Your task to perform on an android device: Open privacy settings Image 0: 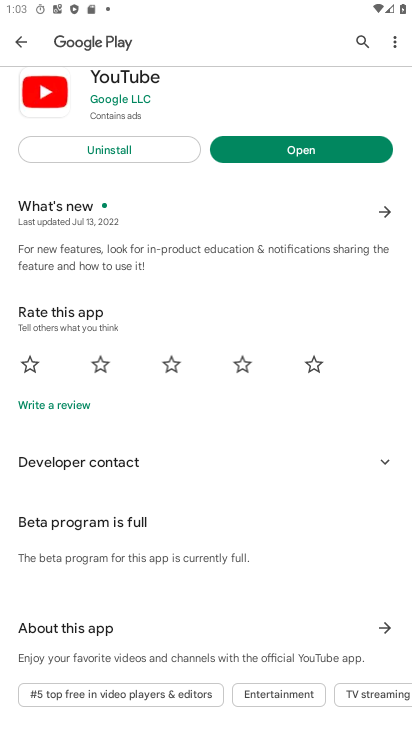
Step 0: drag from (150, 314) to (315, 728)
Your task to perform on an android device: Open privacy settings Image 1: 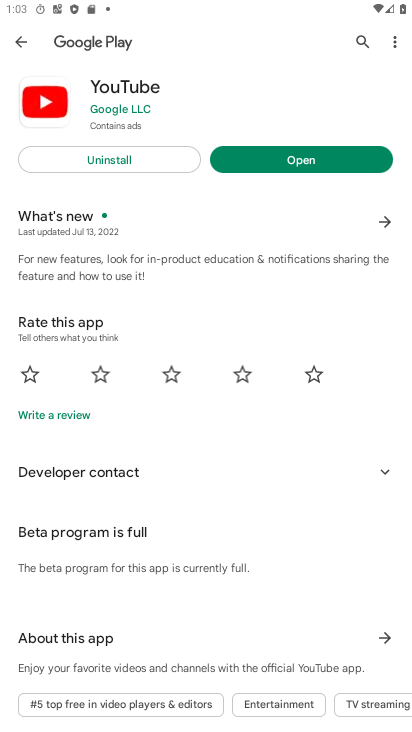
Step 1: press home button
Your task to perform on an android device: Open privacy settings Image 2: 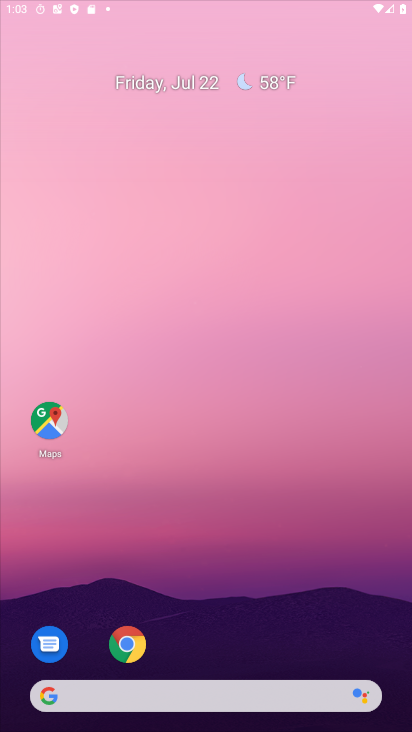
Step 2: drag from (180, 539) to (248, 728)
Your task to perform on an android device: Open privacy settings Image 3: 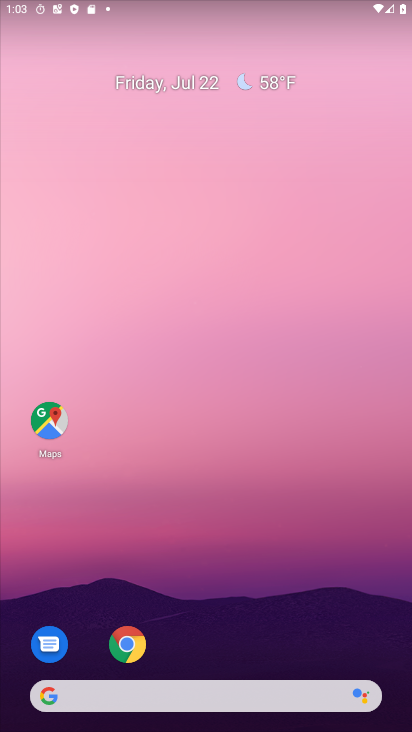
Step 3: drag from (176, 588) to (230, 139)
Your task to perform on an android device: Open privacy settings Image 4: 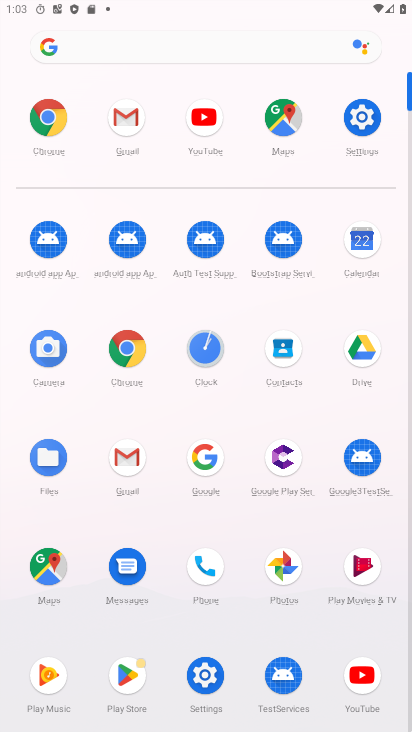
Step 4: click (204, 676)
Your task to perform on an android device: Open privacy settings Image 5: 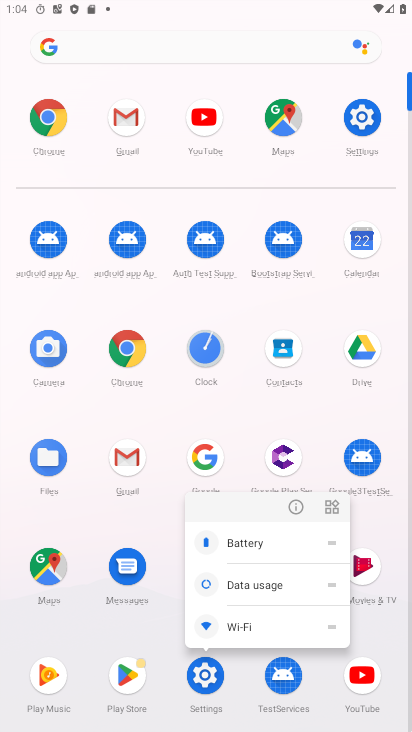
Step 5: click (287, 501)
Your task to perform on an android device: Open privacy settings Image 6: 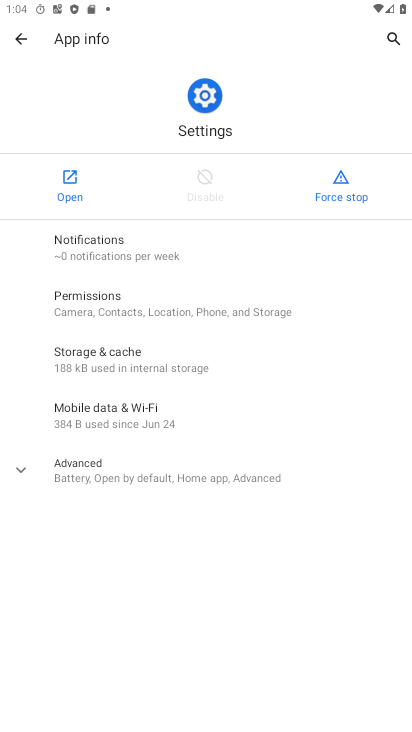
Step 6: click (66, 177)
Your task to perform on an android device: Open privacy settings Image 7: 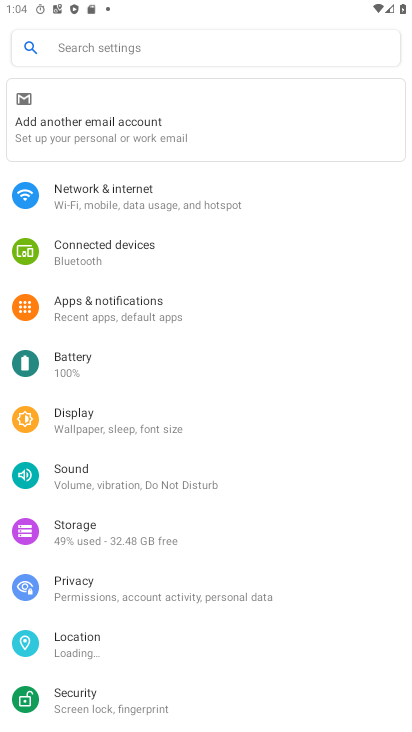
Step 7: click (82, 585)
Your task to perform on an android device: Open privacy settings Image 8: 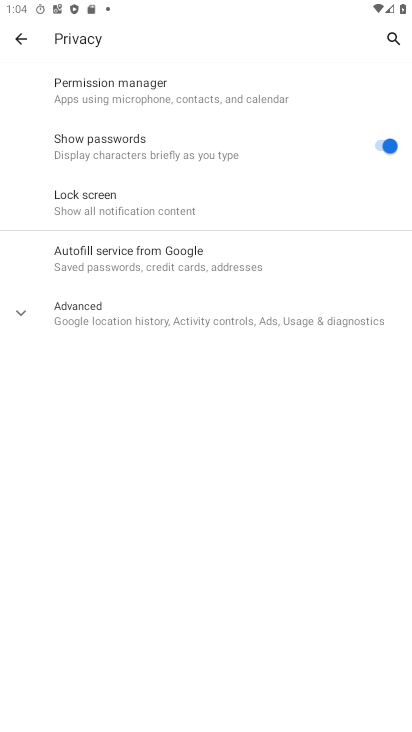
Step 8: task complete